Your task to perform on an android device: turn on the 24-hour format for clock Image 0: 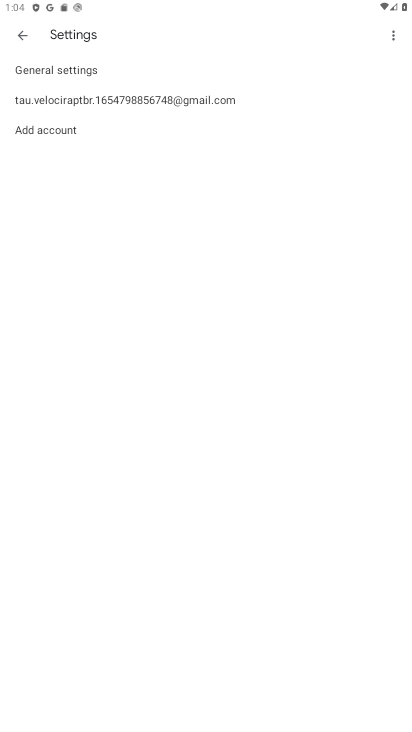
Step 0: press home button
Your task to perform on an android device: turn on the 24-hour format for clock Image 1: 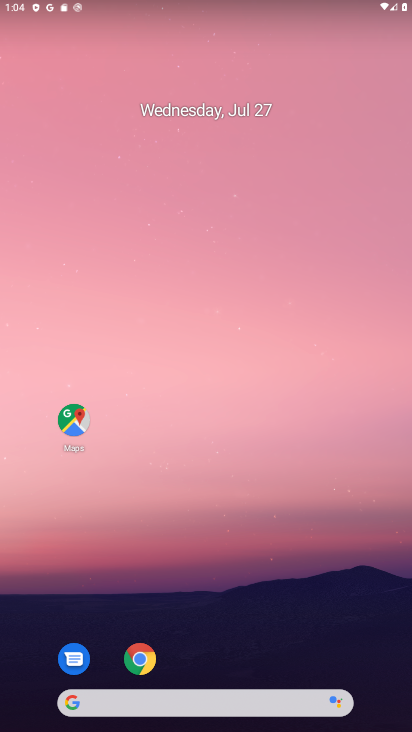
Step 1: drag from (302, 660) to (206, 29)
Your task to perform on an android device: turn on the 24-hour format for clock Image 2: 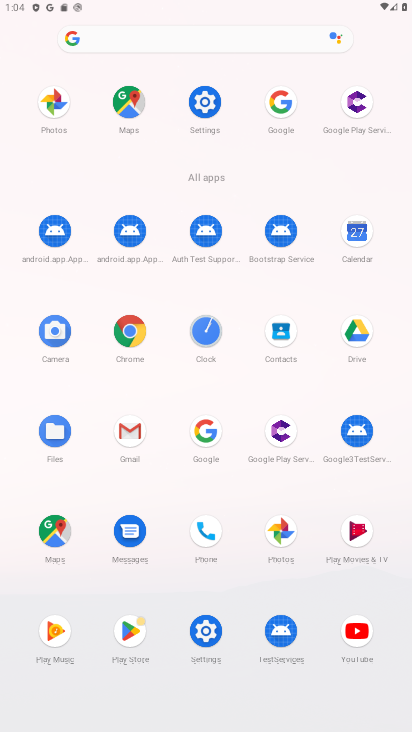
Step 2: click (208, 354)
Your task to perform on an android device: turn on the 24-hour format for clock Image 3: 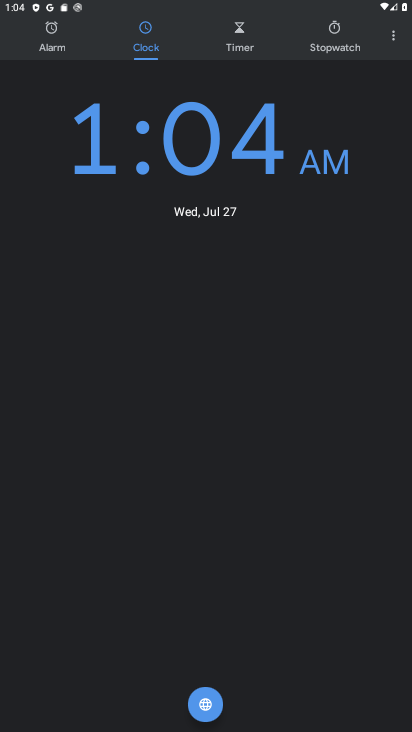
Step 3: click (380, 46)
Your task to perform on an android device: turn on the 24-hour format for clock Image 4: 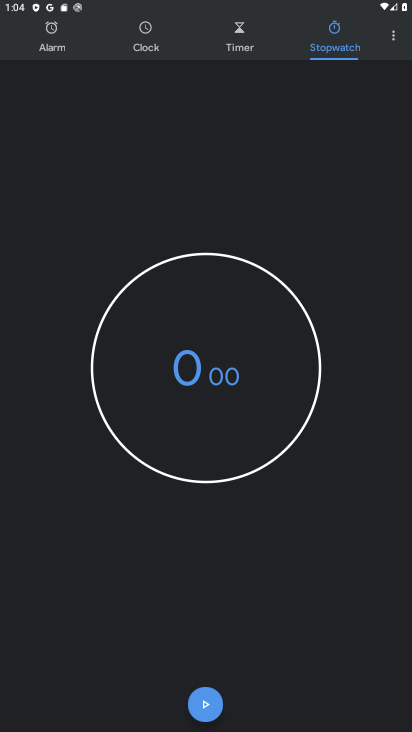
Step 4: click (391, 46)
Your task to perform on an android device: turn on the 24-hour format for clock Image 5: 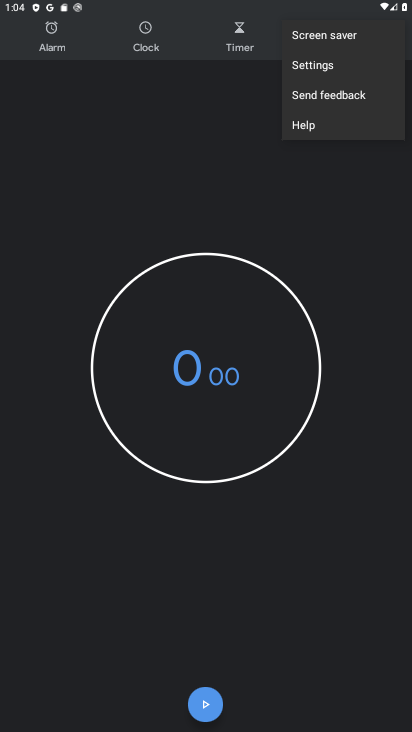
Step 5: click (332, 76)
Your task to perform on an android device: turn on the 24-hour format for clock Image 6: 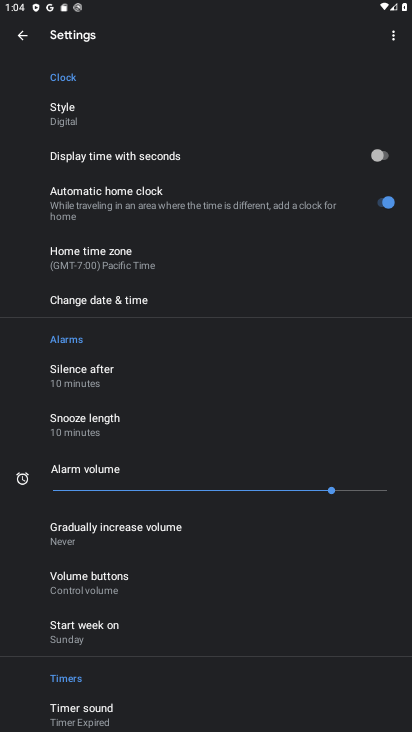
Step 6: click (172, 296)
Your task to perform on an android device: turn on the 24-hour format for clock Image 7: 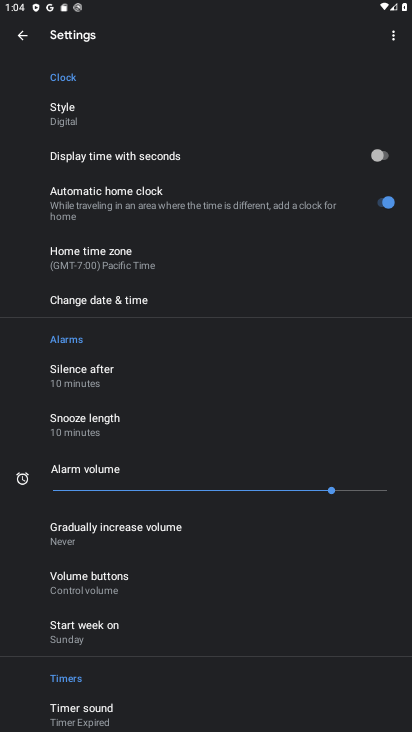
Step 7: click (172, 296)
Your task to perform on an android device: turn on the 24-hour format for clock Image 8: 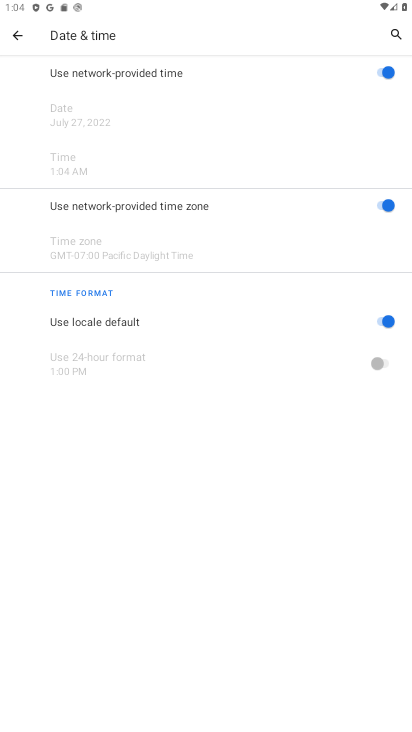
Step 8: drag from (191, 454) to (137, 194)
Your task to perform on an android device: turn on the 24-hour format for clock Image 9: 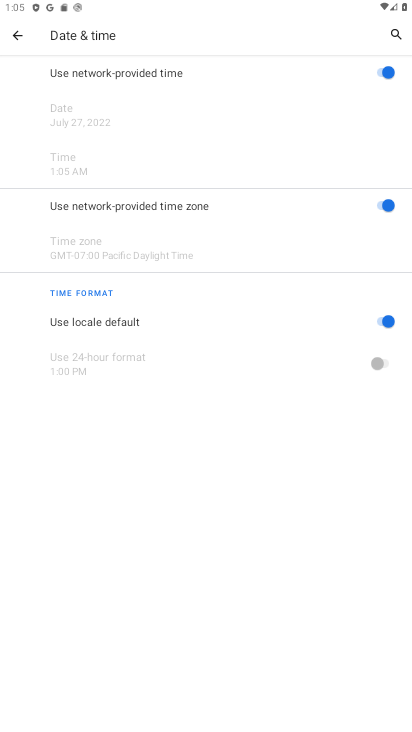
Step 9: click (379, 313)
Your task to perform on an android device: turn on the 24-hour format for clock Image 10: 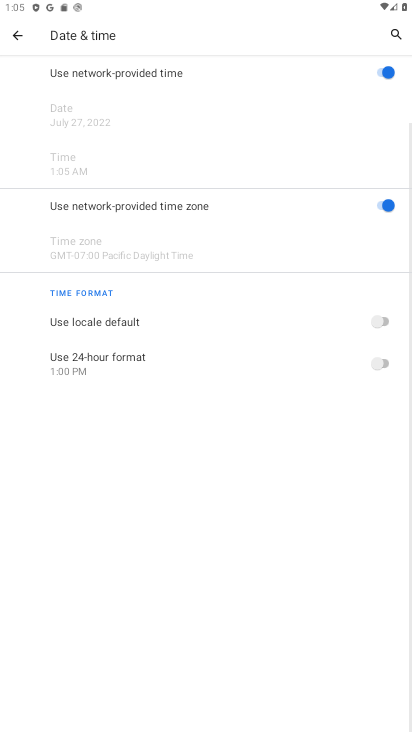
Step 10: click (382, 368)
Your task to perform on an android device: turn on the 24-hour format for clock Image 11: 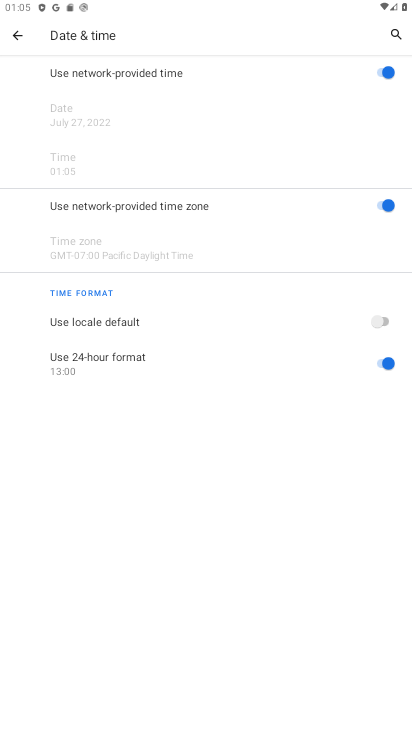
Step 11: task complete